Your task to perform on an android device: Add "bose soundsport free" to the cart on bestbuy, then select checkout. Image 0: 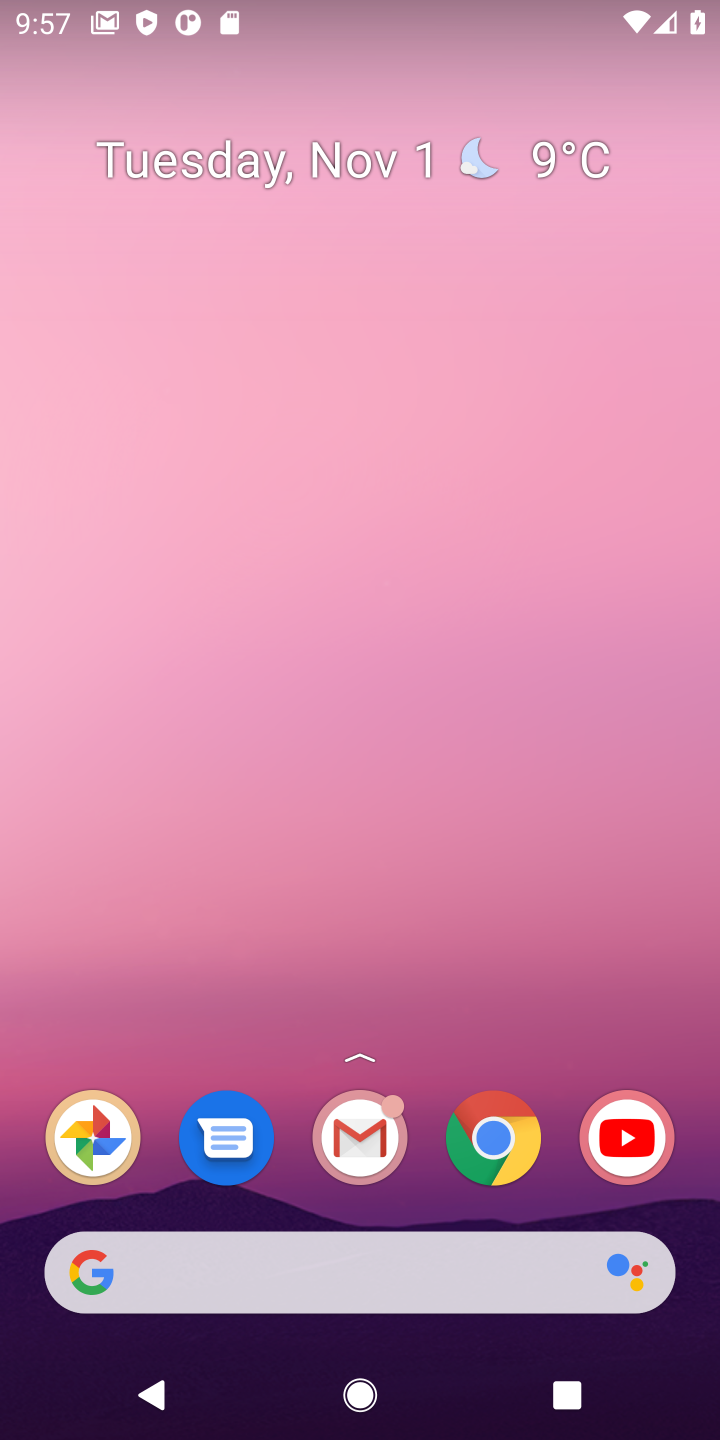
Step 0: click (483, 1159)
Your task to perform on an android device: Add "bose soundsport free" to the cart on bestbuy, then select checkout. Image 1: 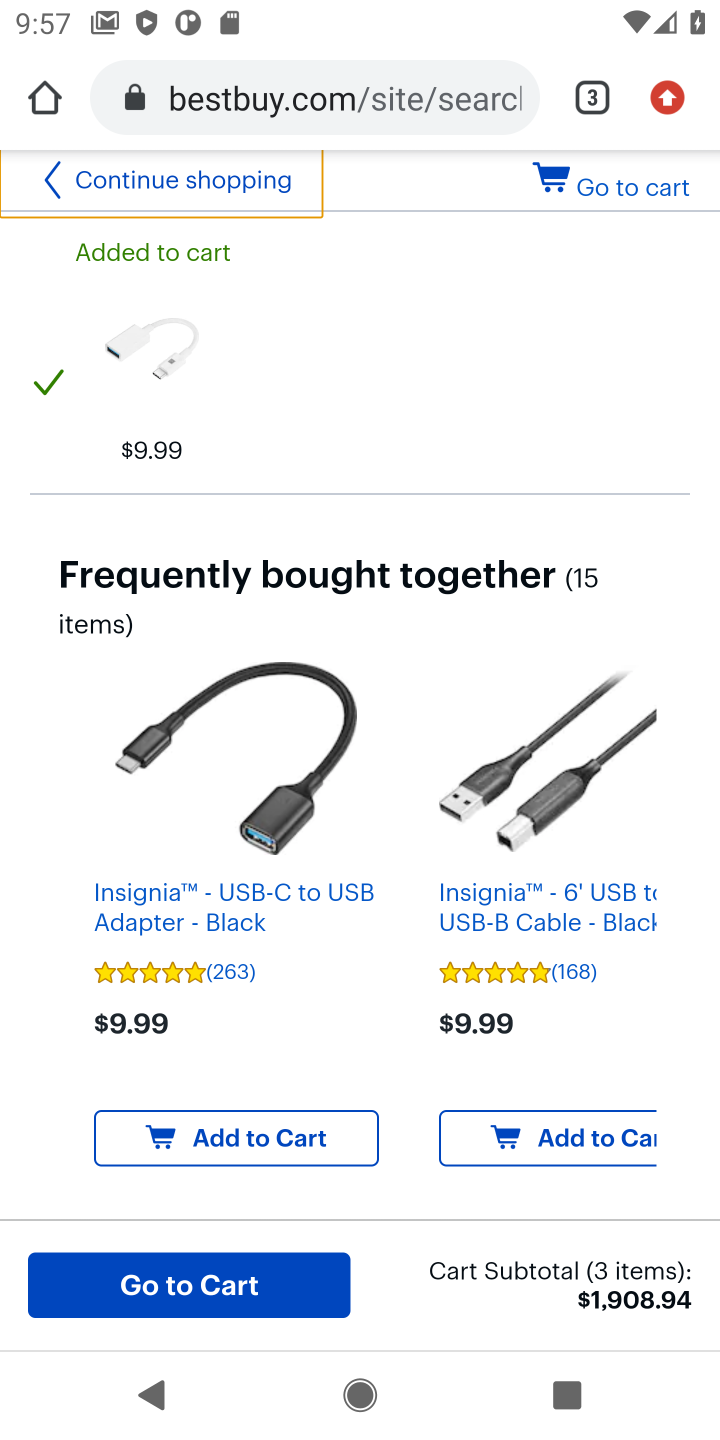
Step 1: click (209, 180)
Your task to perform on an android device: Add "bose soundsport free" to the cart on bestbuy, then select checkout. Image 2: 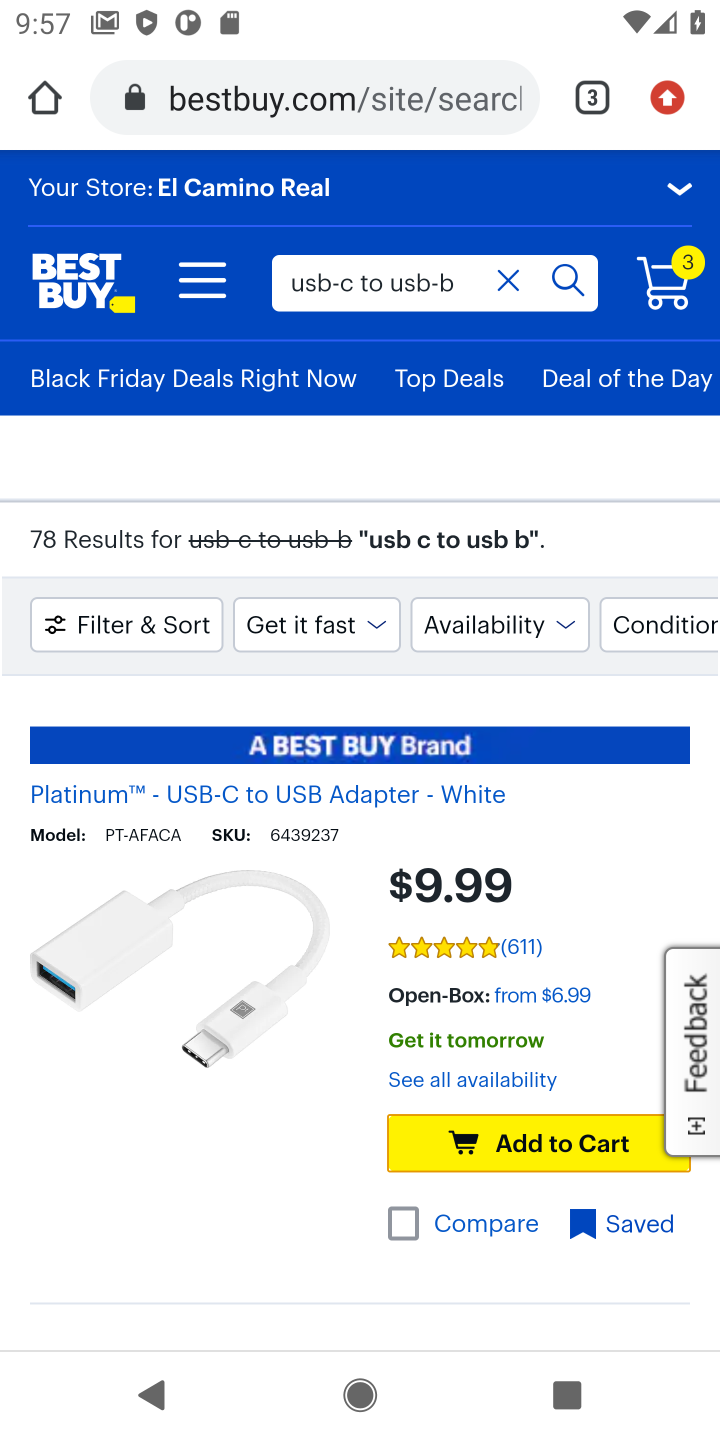
Step 2: click (503, 281)
Your task to perform on an android device: Add "bose soundsport free" to the cart on bestbuy, then select checkout. Image 3: 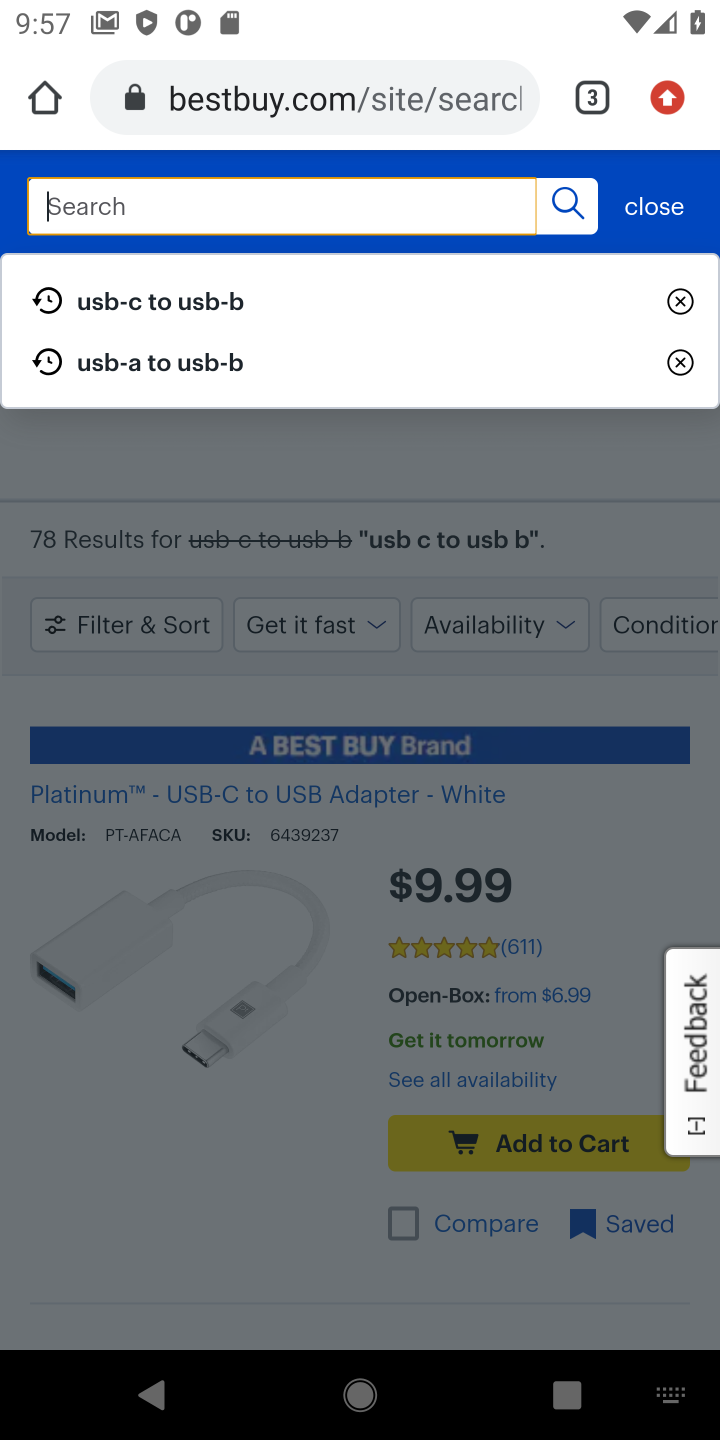
Step 3: type "bose soundsport free"
Your task to perform on an android device: Add "bose soundsport free" to the cart on bestbuy, then select checkout. Image 4: 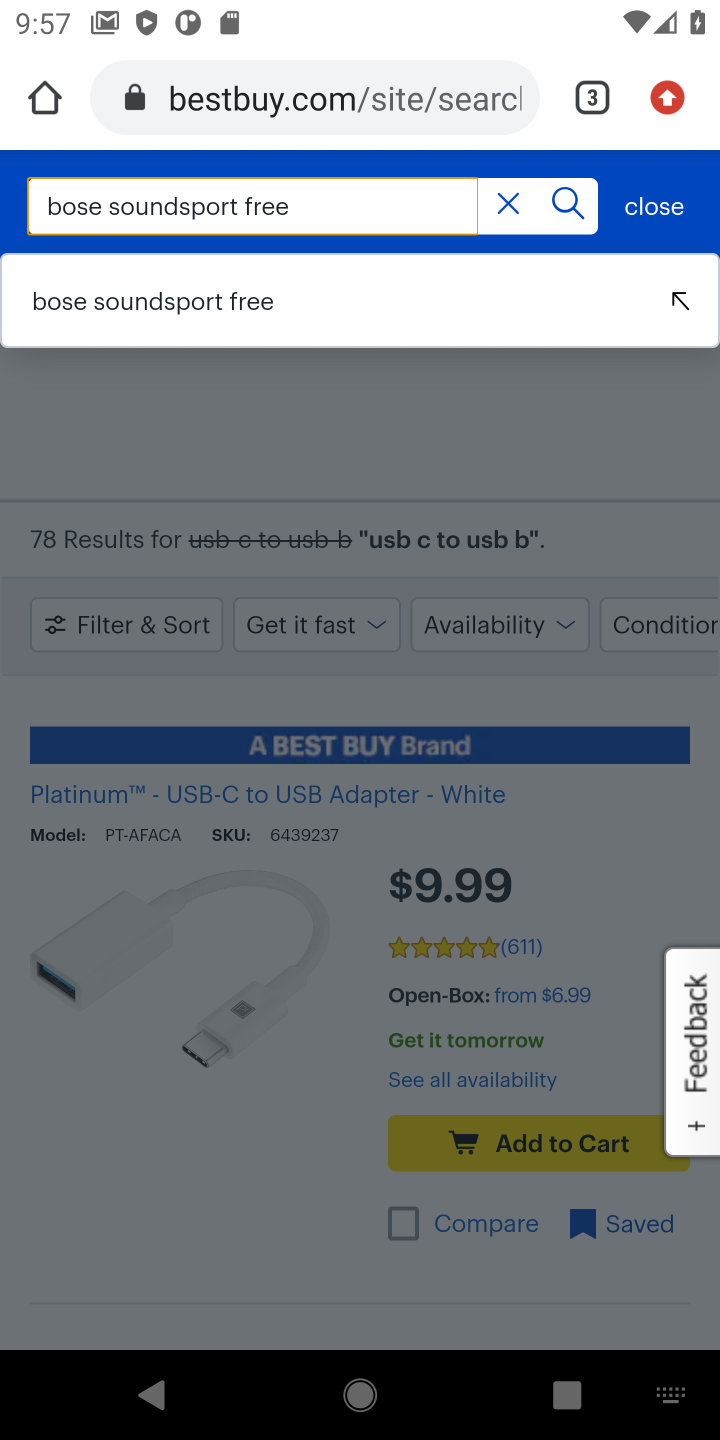
Step 4: click (147, 296)
Your task to perform on an android device: Add "bose soundsport free" to the cart on bestbuy, then select checkout. Image 5: 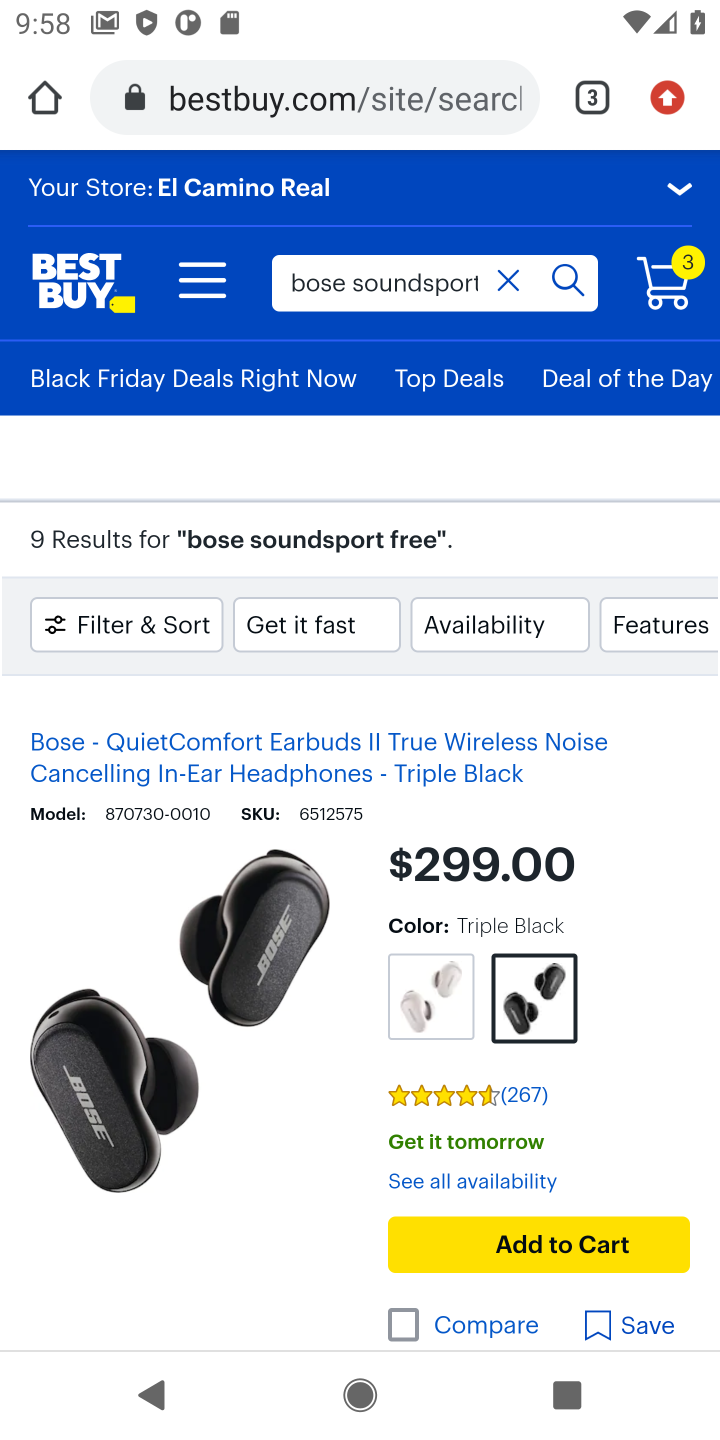
Step 5: click (494, 1244)
Your task to perform on an android device: Add "bose soundsport free" to the cart on bestbuy, then select checkout. Image 6: 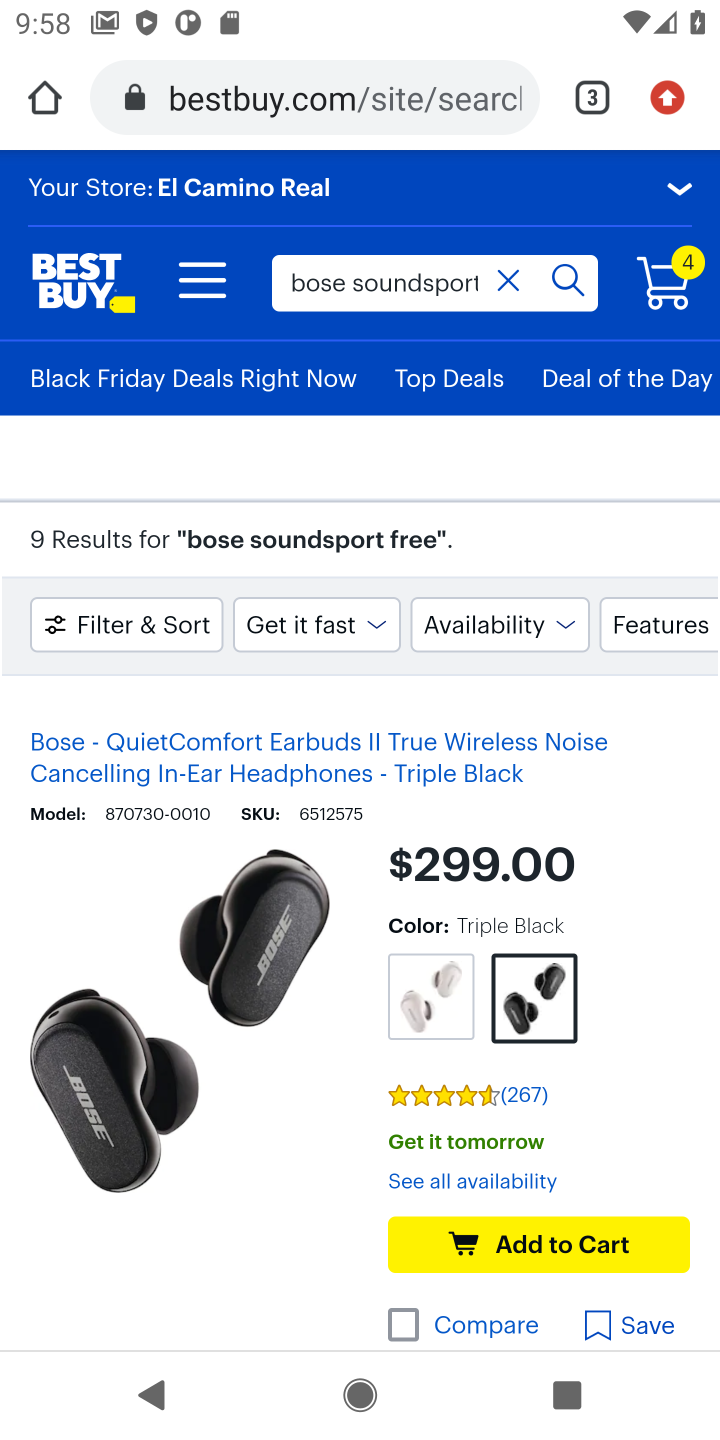
Step 6: click (677, 260)
Your task to perform on an android device: Add "bose soundsport free" to the cart on bestbuy, then select checkout. Image 7: 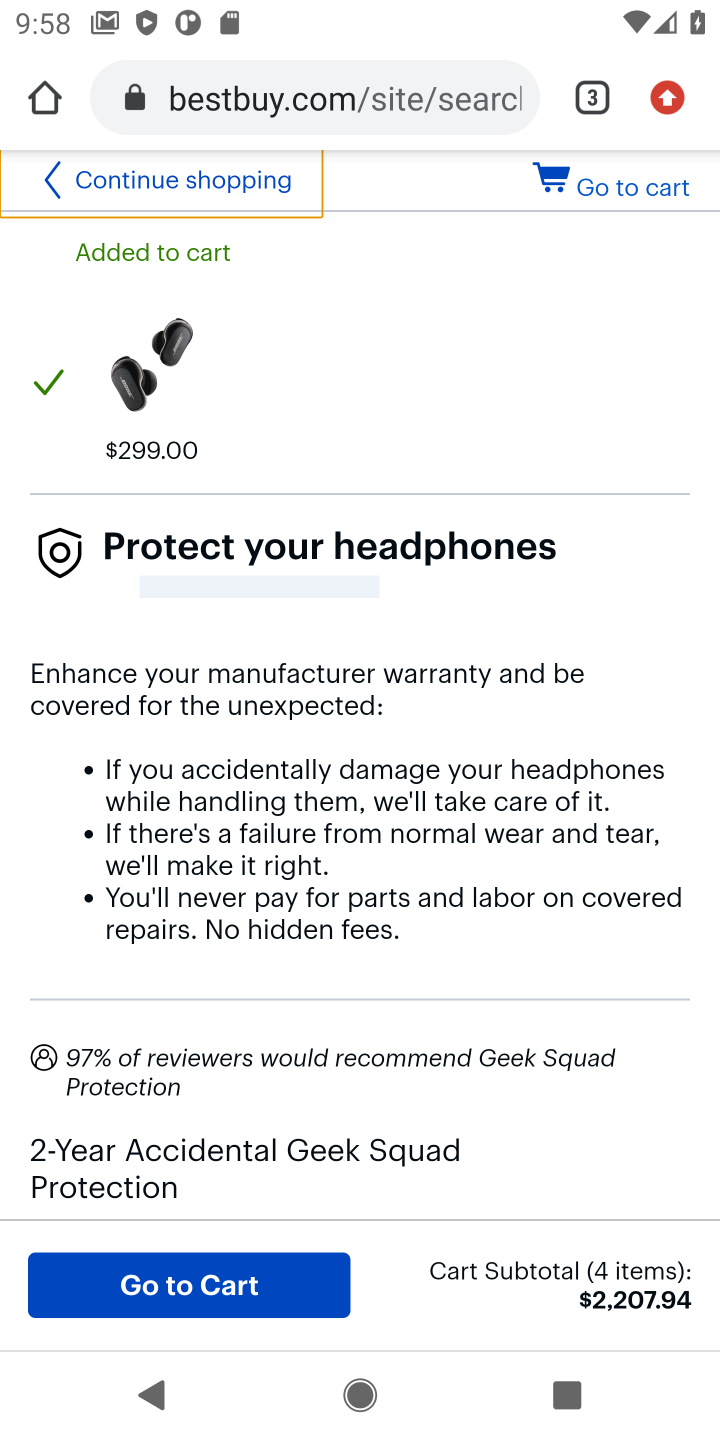
Step 7: click (201, 1290)
Your task to perform on an android device: Add "bose soundsport free" to the cart on bestbuy, then select checkout. Image 8: 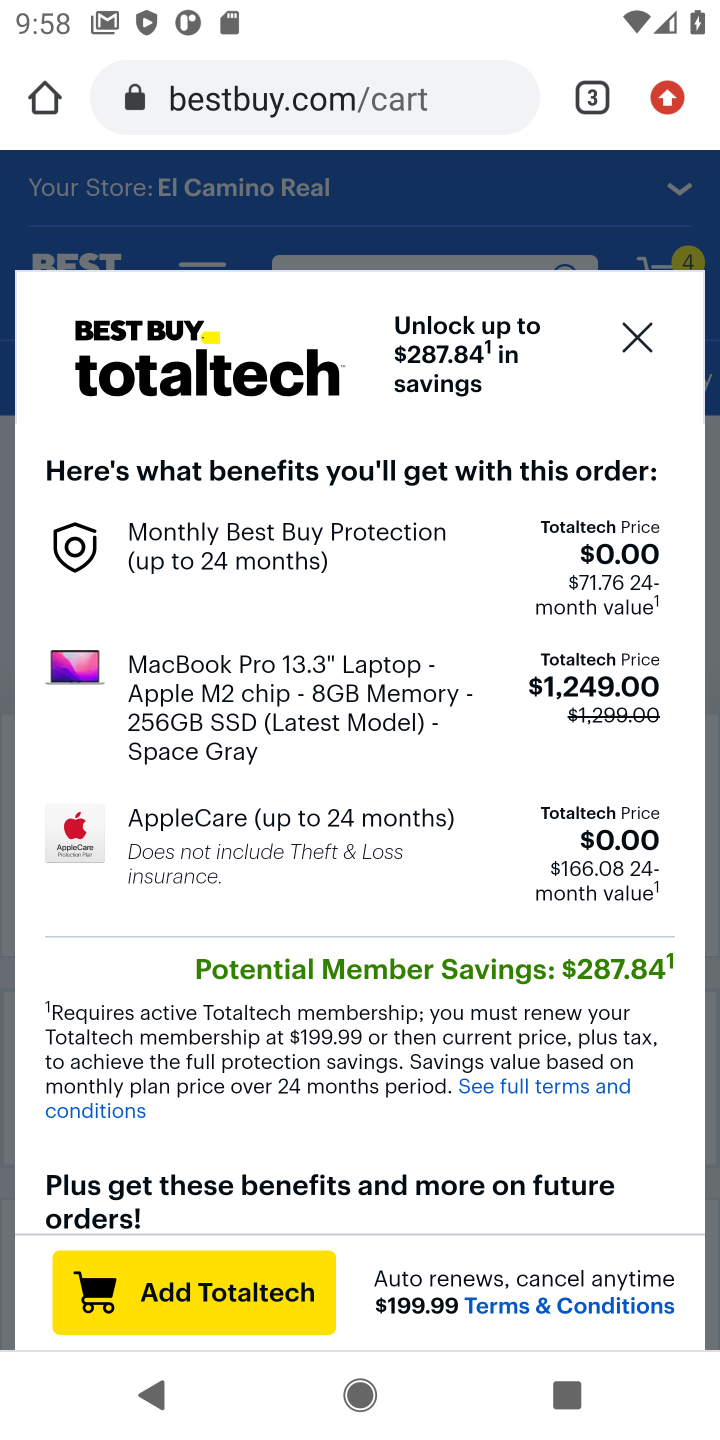
Step 8: click (634, 332)
Your task to perform on an android device: Add "bose soundsport free" to the cart on bestbuy, then select checkout. Image 9: 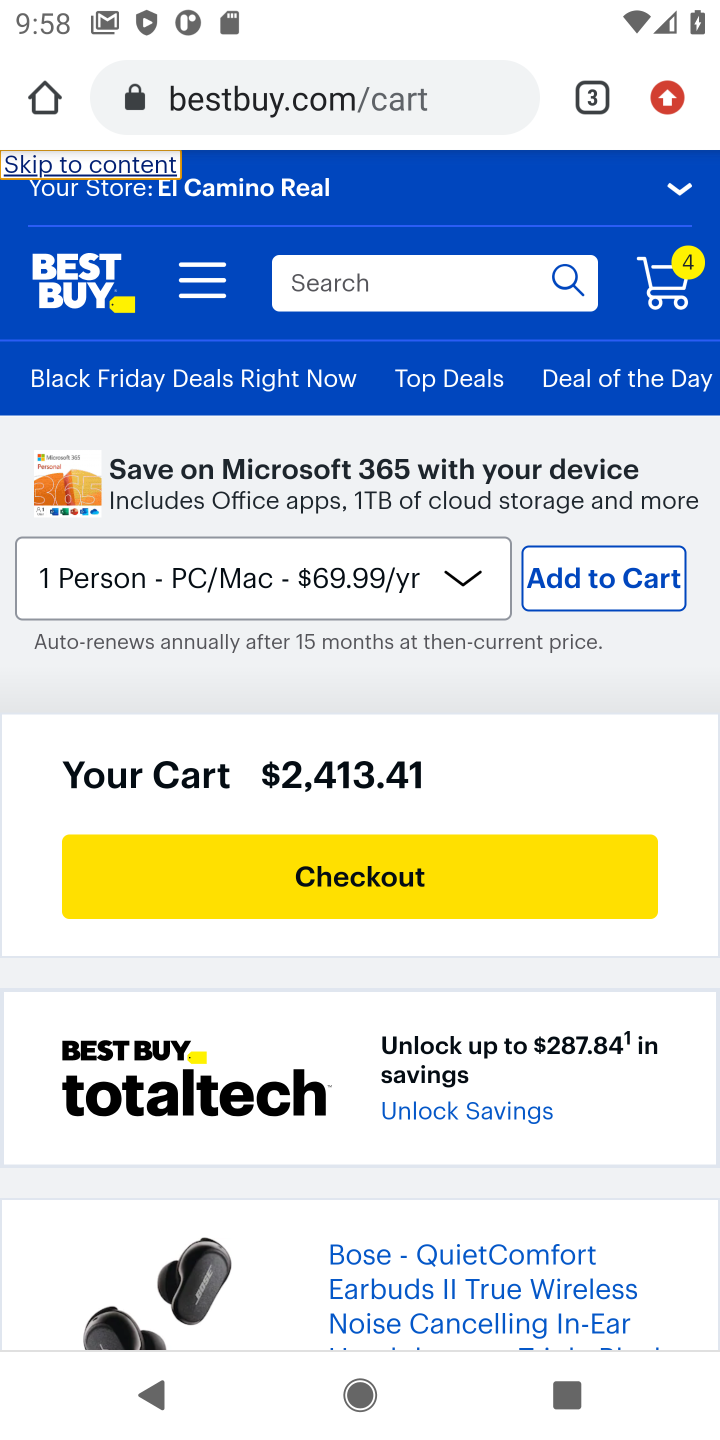
Step 9: click (415, 852)
Your task to perform on an android device: Add "bose soundsport free" to the cart on bestbuy, then select checkout. Image 10: 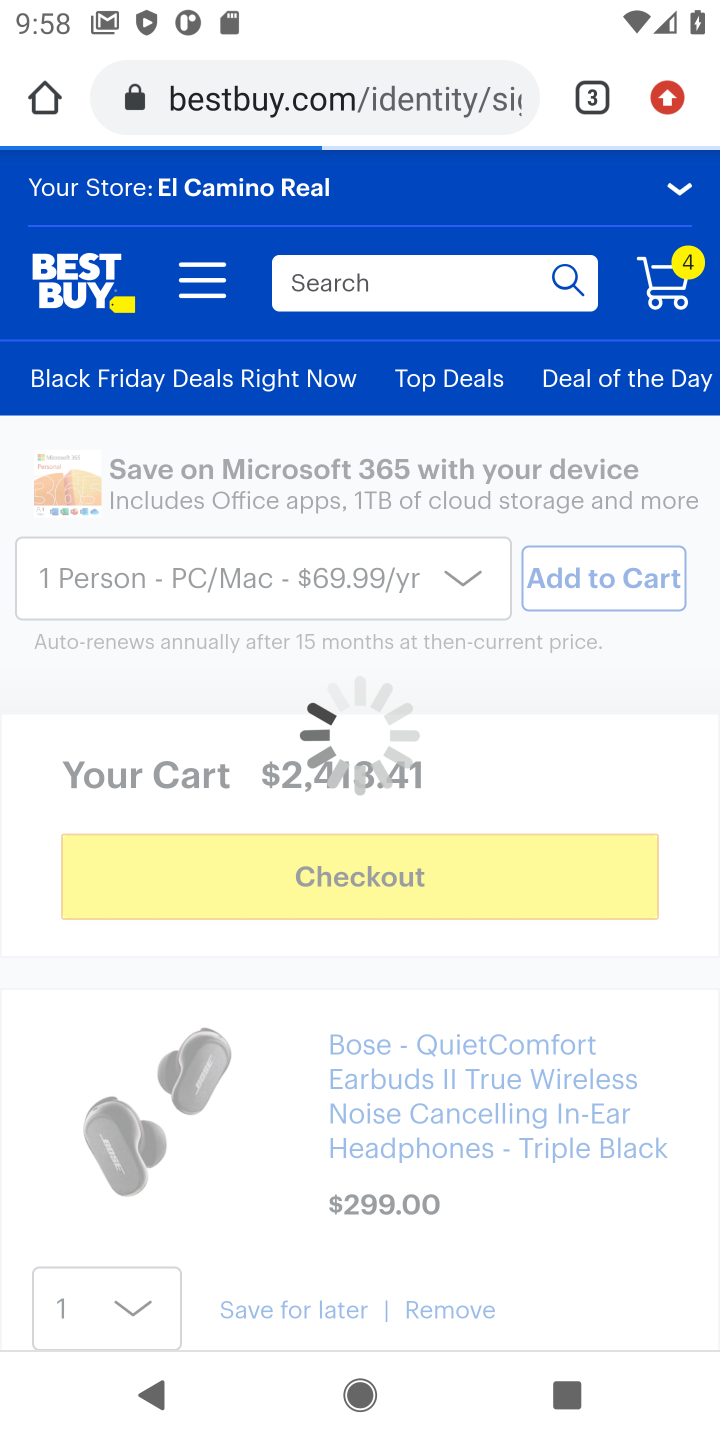
Step 10: task complete